Your task to perform on an android device: Go to wifi settings Image 0: 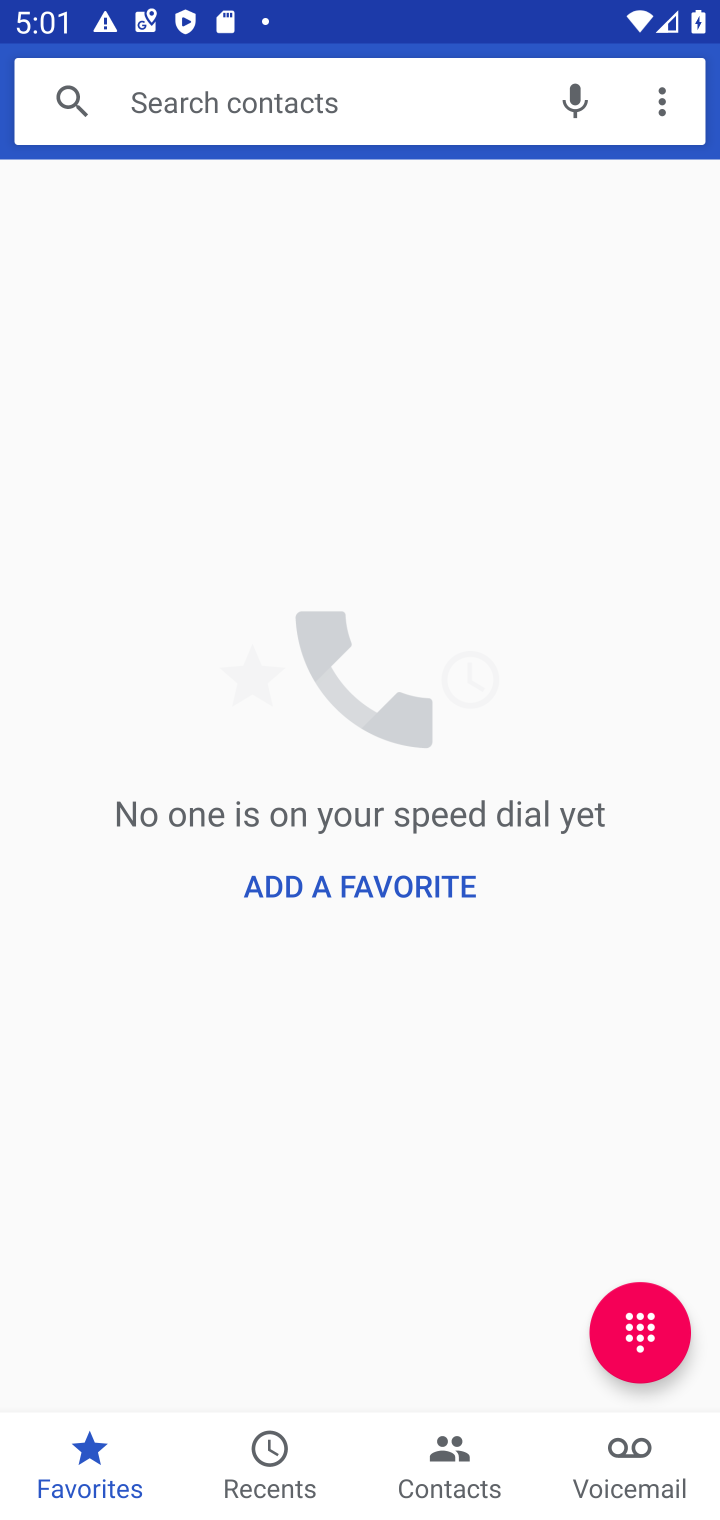
Step 0: press home button
Your task to perform on an android device: Go to wifi settings Image 1: 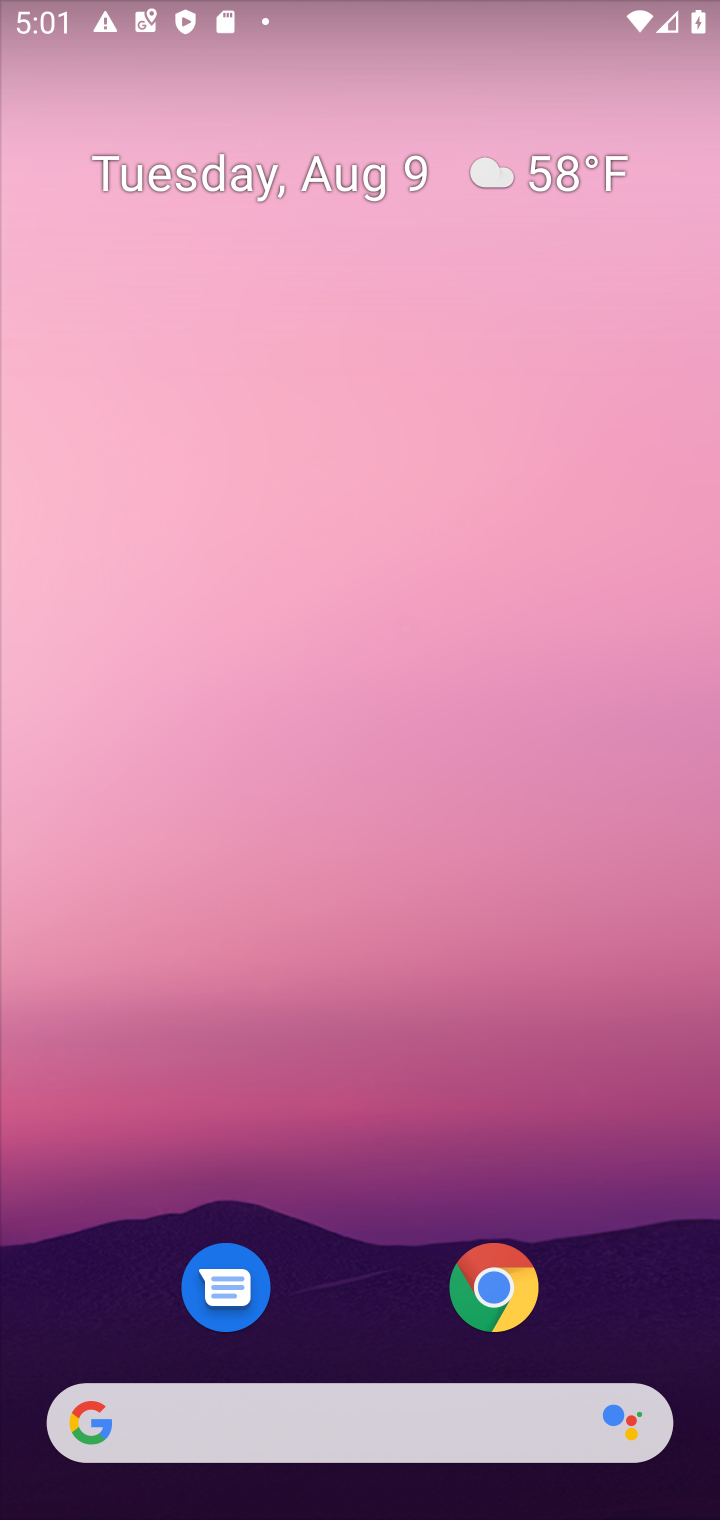
Step 1: drag from (292, 1207) to (588, 200)
Your task to perform on an android device: Go to wifi settings Image 2: 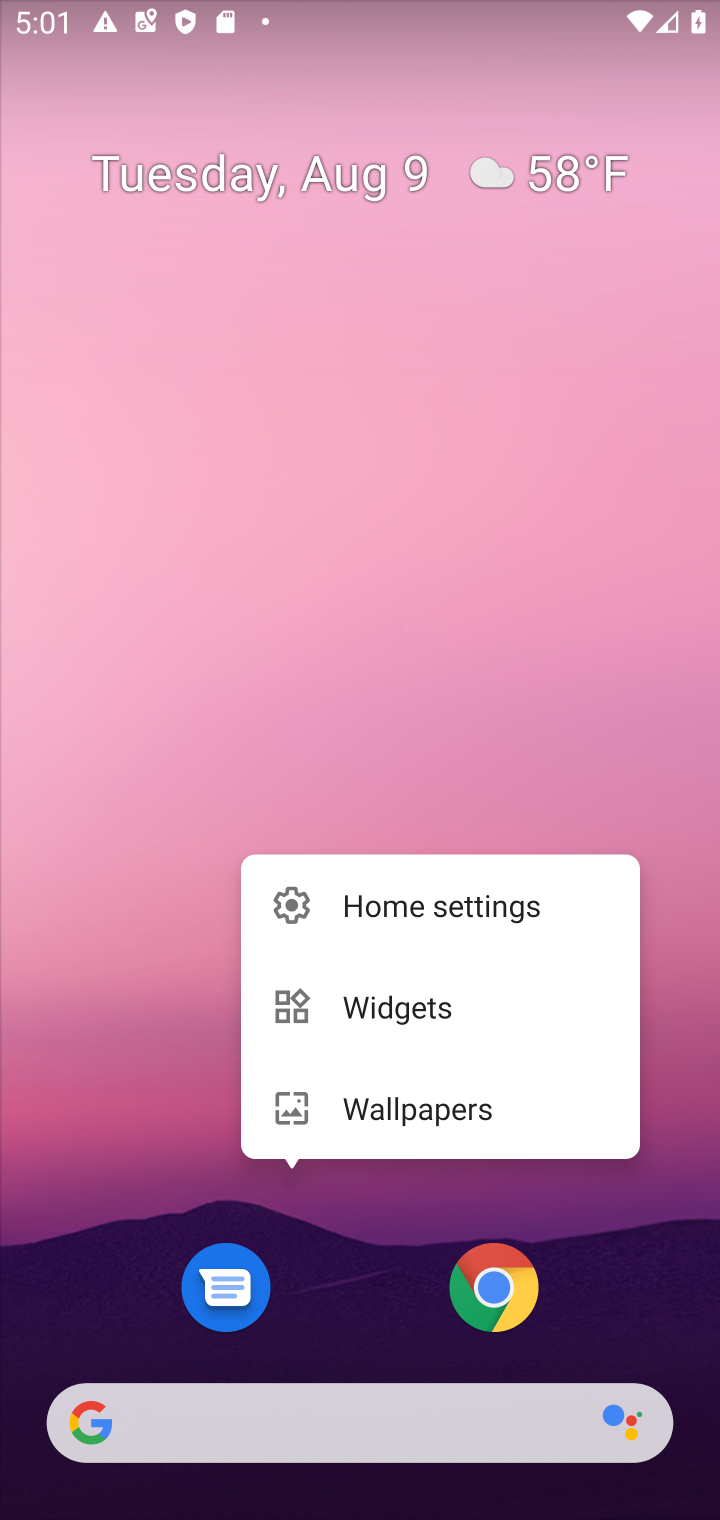
Step 2: click (175, 856)
Your task to perform on an android device: Go to wifi settings Image 3: 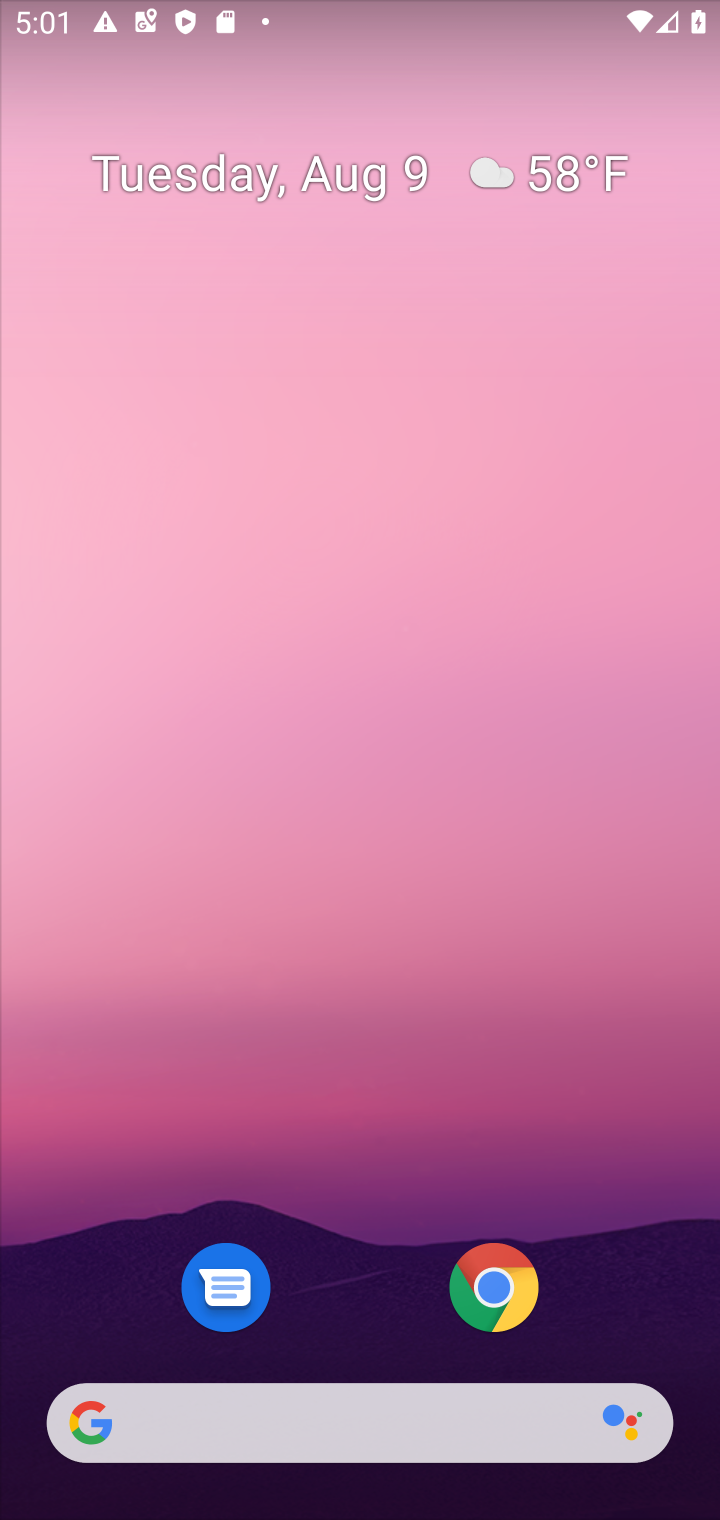
Step 3: drag from (364, 1149) to (505, 232)
Your task to perform on an android device: Go to wifi settings Image 4: 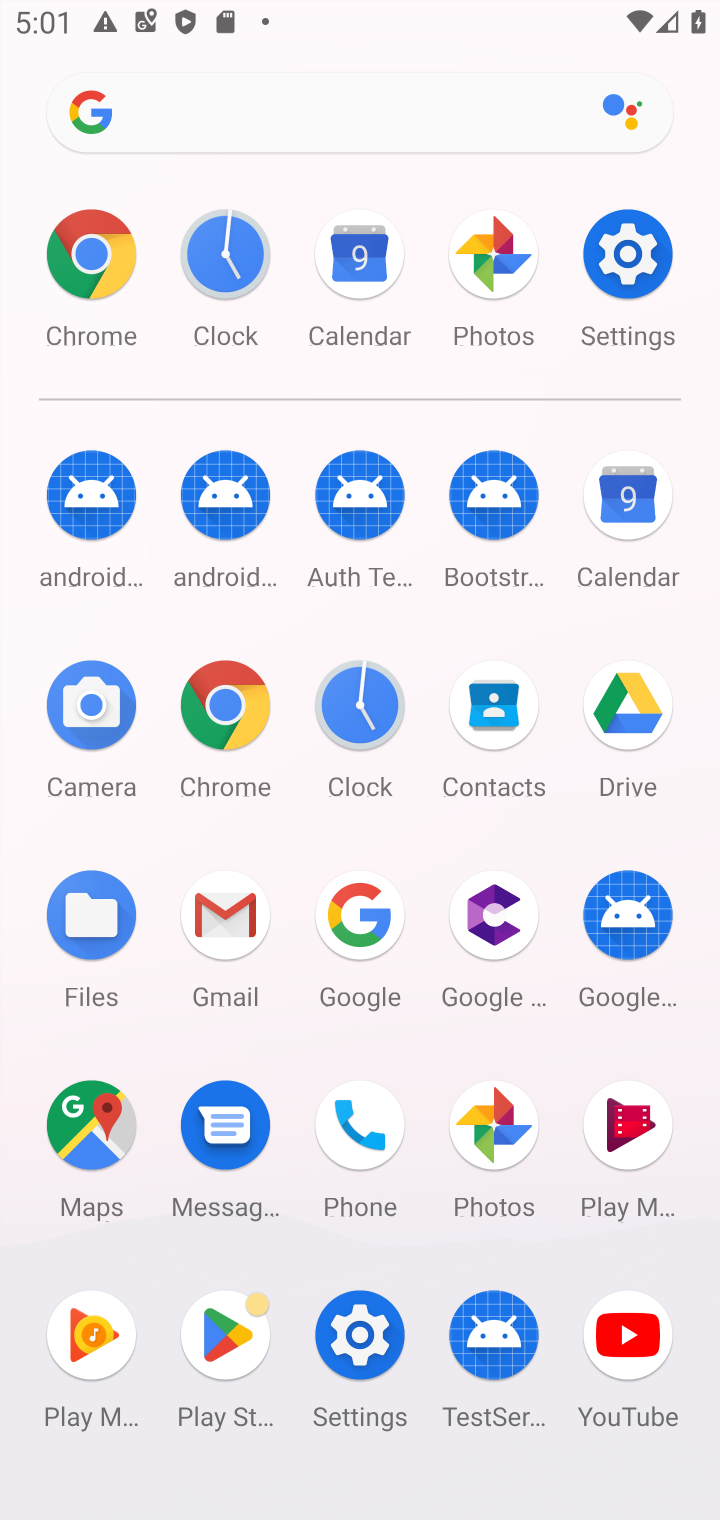
Step 4: click (634, 257)
Your task to perform on an android device: Go to wifi settings Image 5: 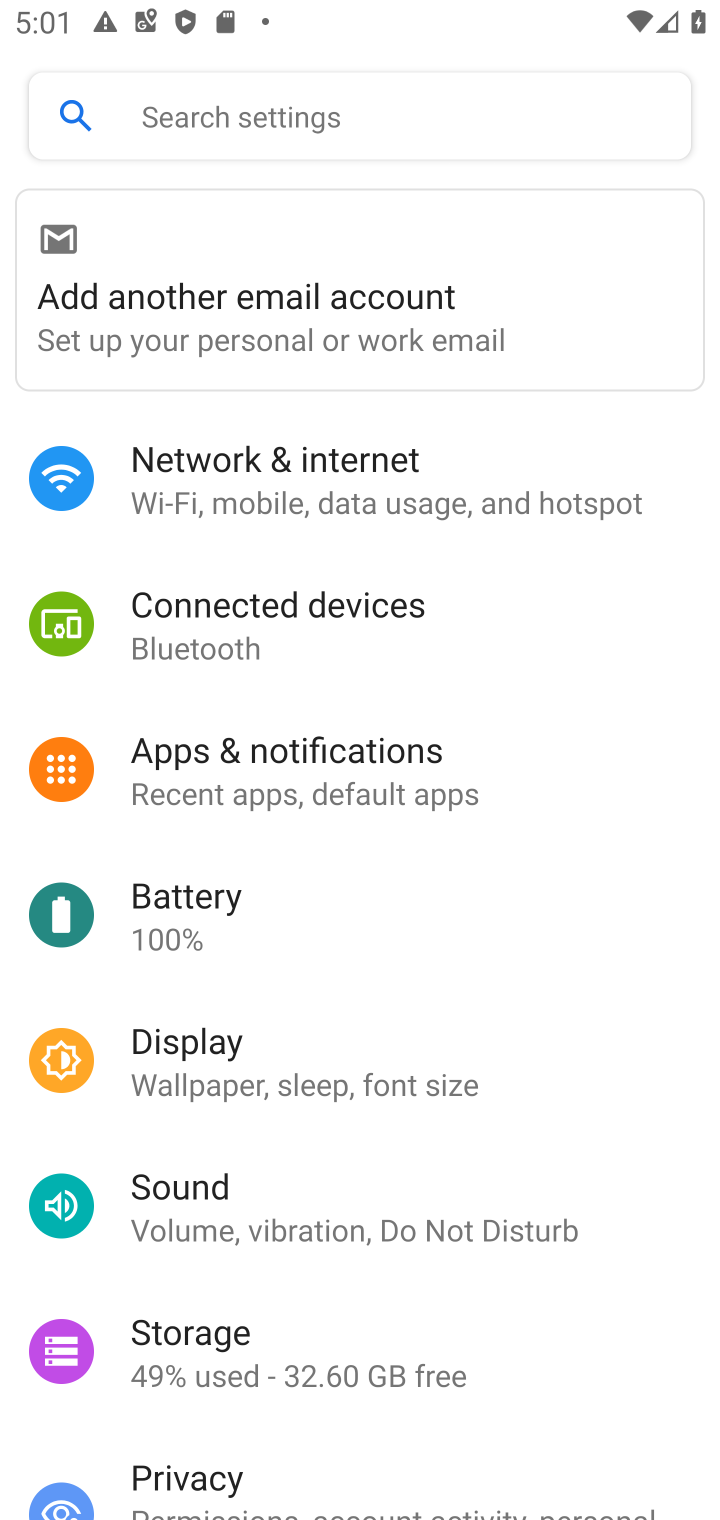
Step 5: click (278, 474)
Your task to perform on an android device: Go to wifi settings Image 6: 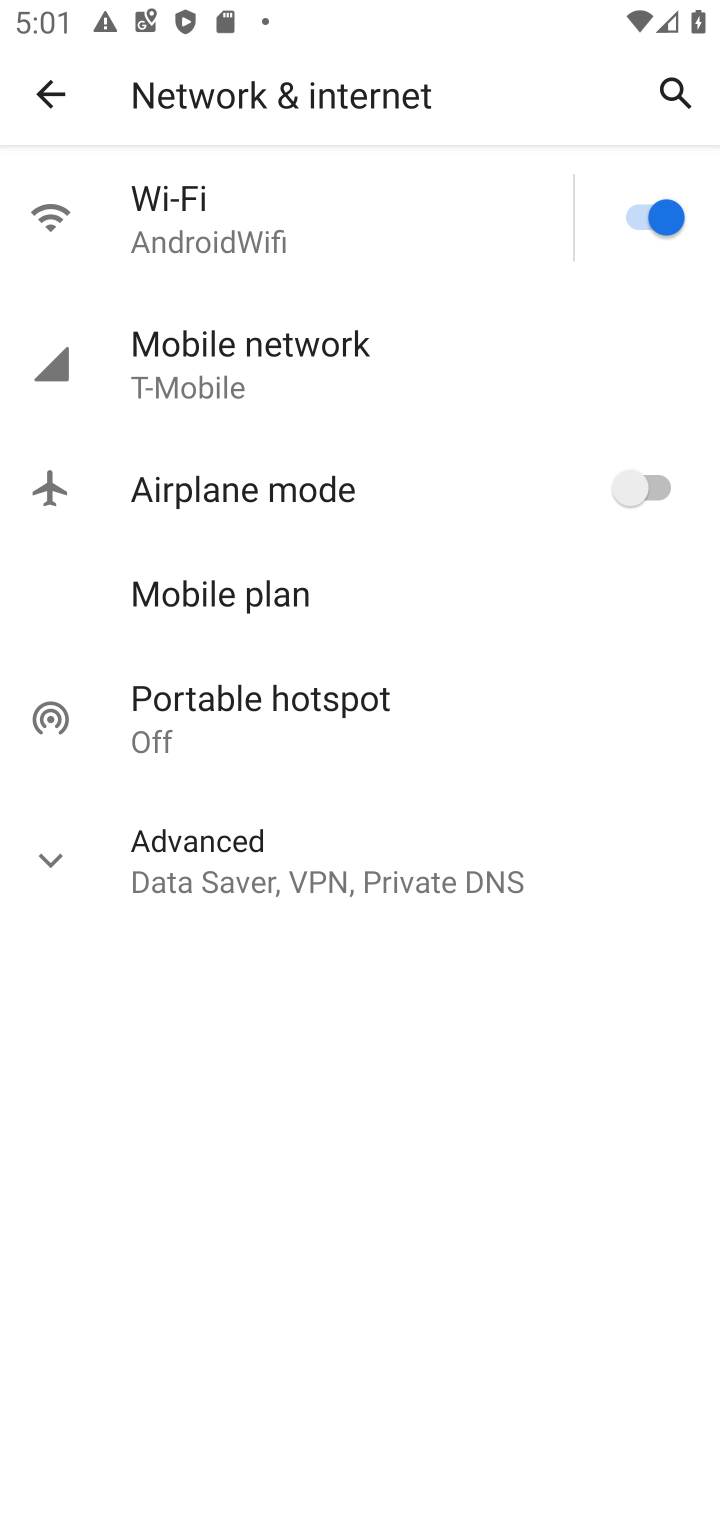
Step 6: task complete